Your task to perform on an android device: add a label to a message in the gmail app Image 0: 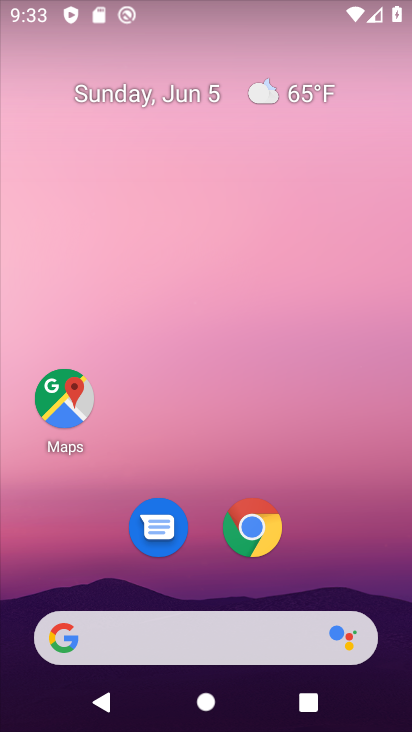
Step 0: drag from (171, 612) to (200, 181)
Your task to perform on an android device: add a label to a message in the gmail app Image 1: 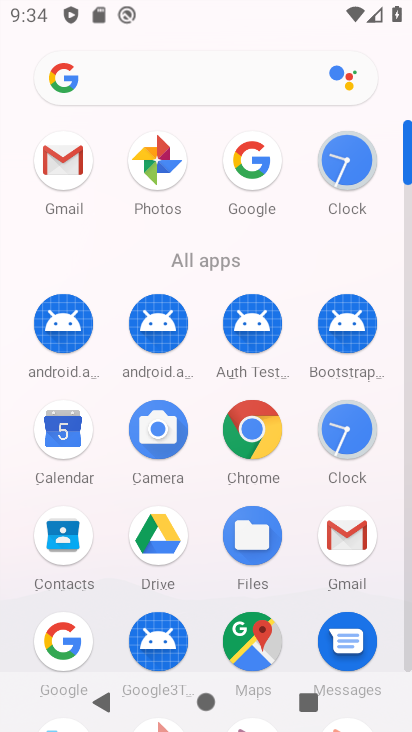
Step 1: click (73, 163)
Your task to perform on an android device: add a label to a message in the gmail app Image 2: 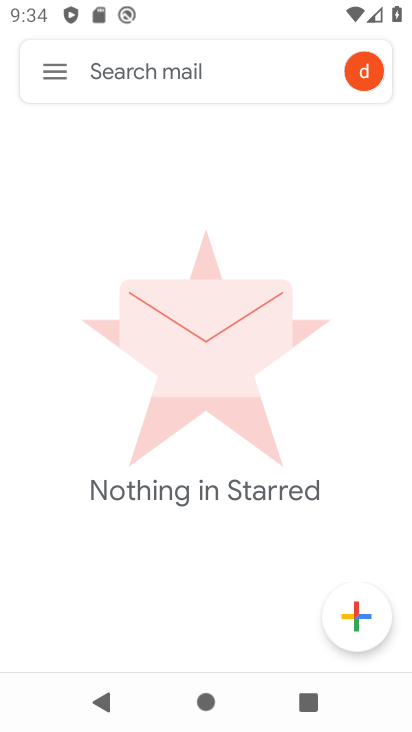
Step 2: click (58, 70)
Your task to perform on an android device: add a label to a message in the gmail app Image 3: 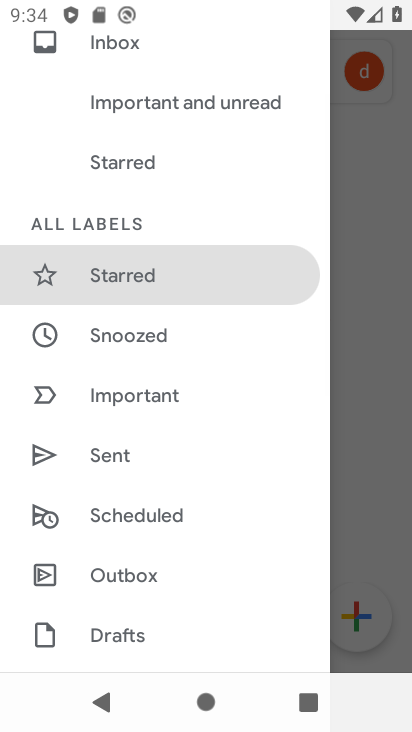
Step 3: drag from (202, 585) to (215, 58)
Your task to perform on an android device: add a label to a message in the gmail app Image 4: 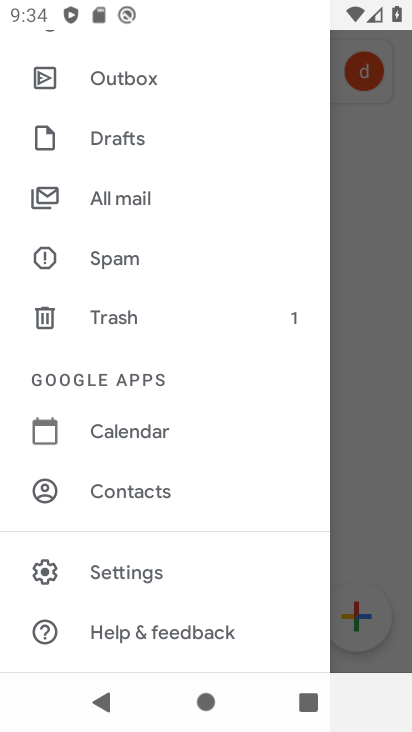
Step 4: click (127, 201)
Your task to perform on an android device: add a label to a message in the gmail app Image 5: 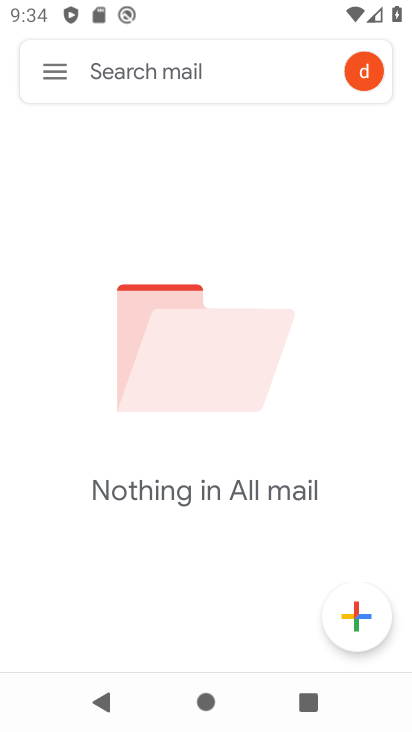
Step 5: task complete